Your task to perform on an android device: Set the phone to "Do not disturb". Image 0: 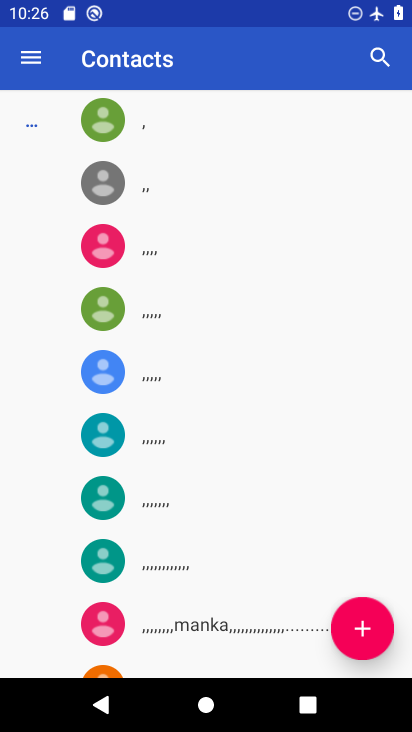
Step 0: drag from (287, 1) to (286, 364)
Your task to perform on an android device: Set the phone to "Do not disturb". Image 1: 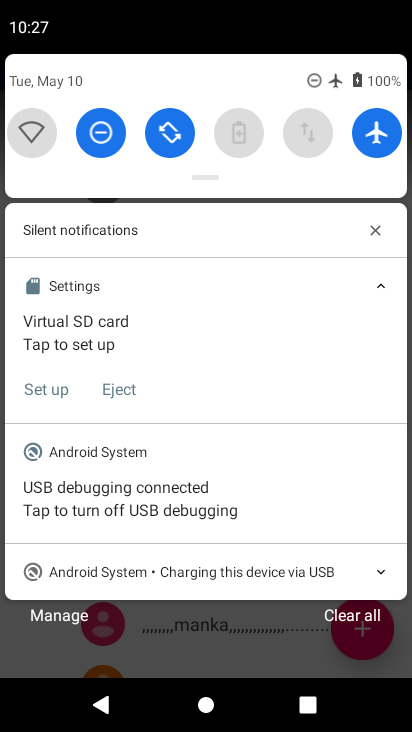
Step 1: task complete